Your task to perform on an android device: Open Maps and search for coffee Image 0: 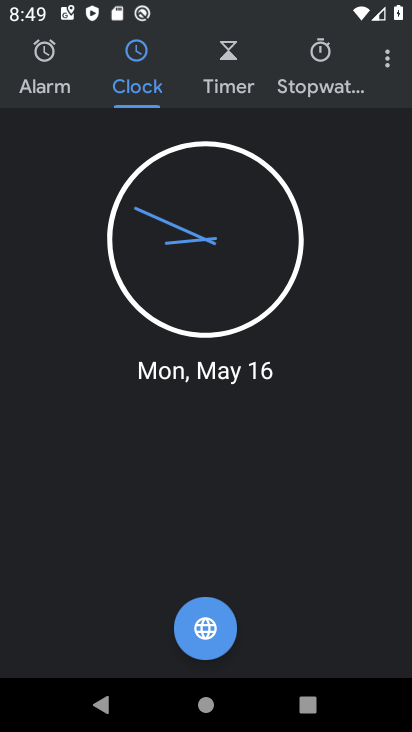
Step 0: press home button
Your task to perform on an android device: Open Maps and search for coffee Image 1: 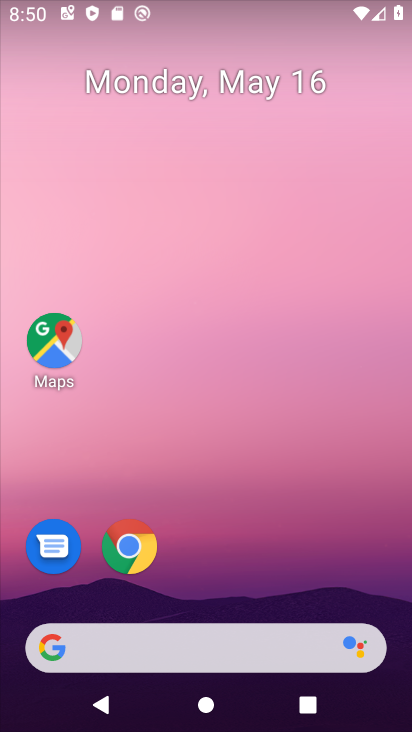
Step 1: drag from (238, 675) to (375, 197)
Your task to perform on an android device: Open Maps and search for coffee Image 2: 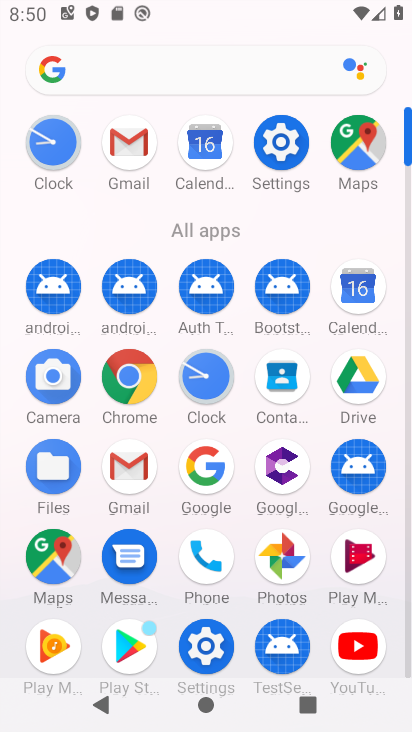
Step 2: click (366, 148)
Your task to perform on an android device: Open Maps and search for coffee Image 3: 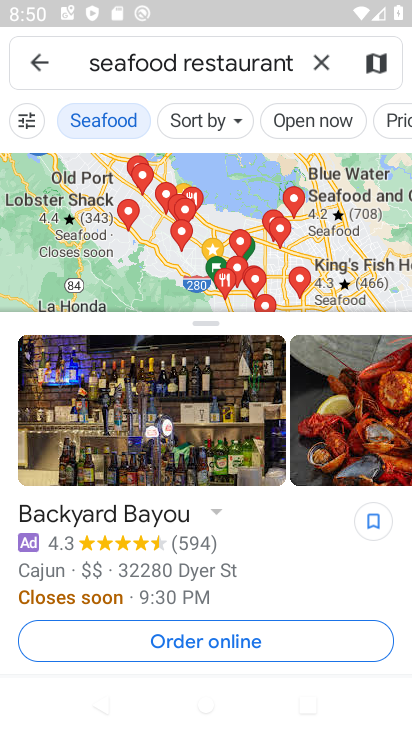
Step 3: click (160, 265)
Your task to perform on an android device: Open Maps and search for coffee Image 4: 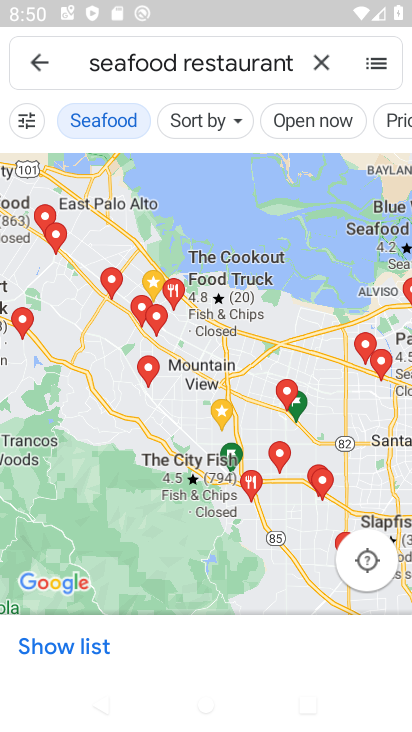
Step 4: click (312, 59)
Your task to perform on an android device: Open Maps and search for coffee Image 5: 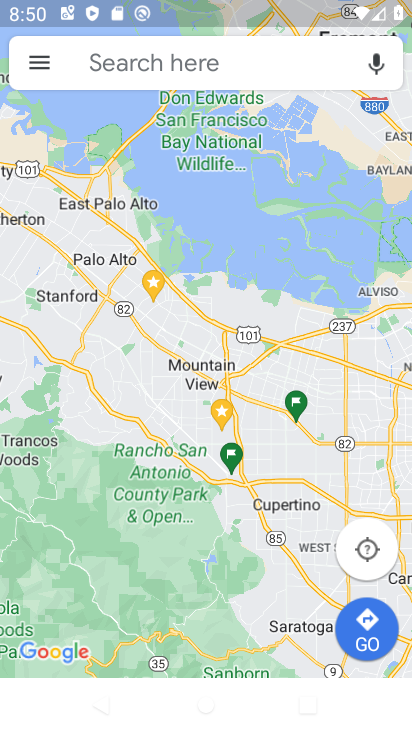
Step 5: click (154, 72)
Your task to perform on an android device: Open Maps and search for coffee Image 6: 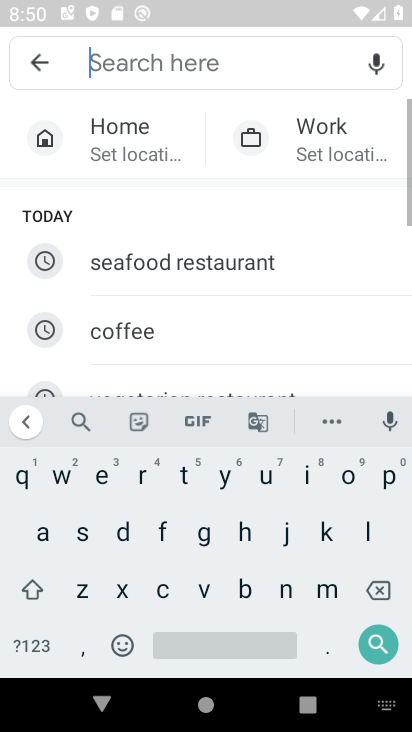
Step 6: click (165, 578)
Your task to perform on an android device: Open Maps and search for coffee Image 7: 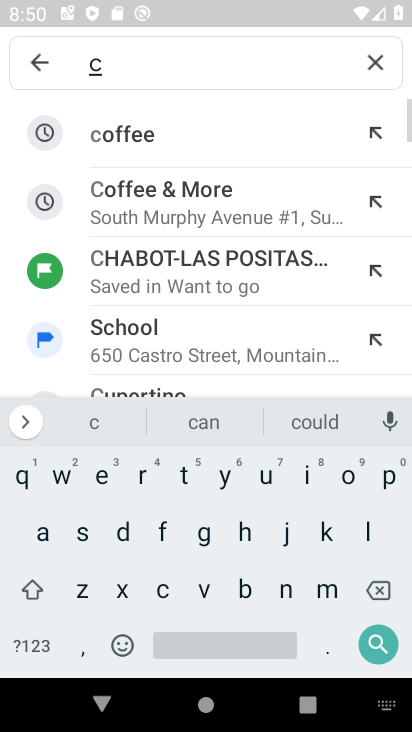
Step 7: click (181, 133)
Your task to perform on an android device: Open Maps and search for coffee Image 8: 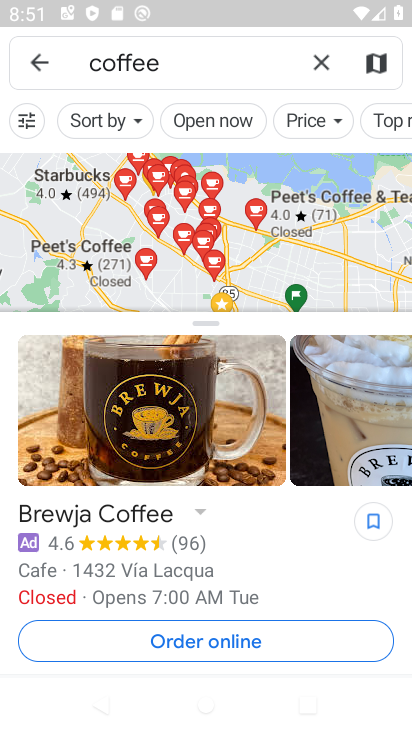
Step 8: click (96, 222)
Your task to perform on an android device: Open Maps and search for coffee Image 9: 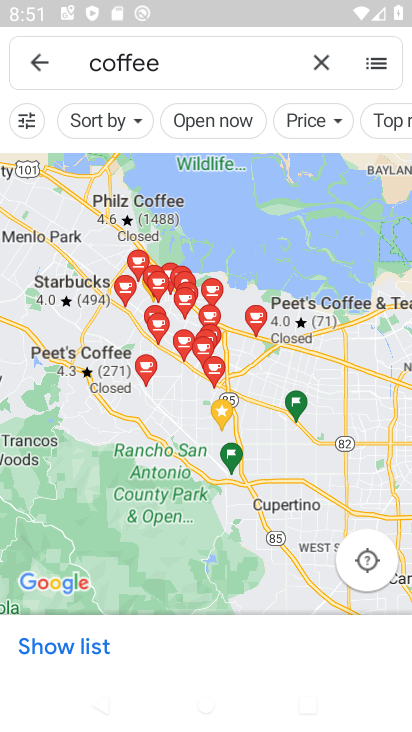
Step 9: task complete